Your task to perform on an android device: Go to wifi settings Image 0: 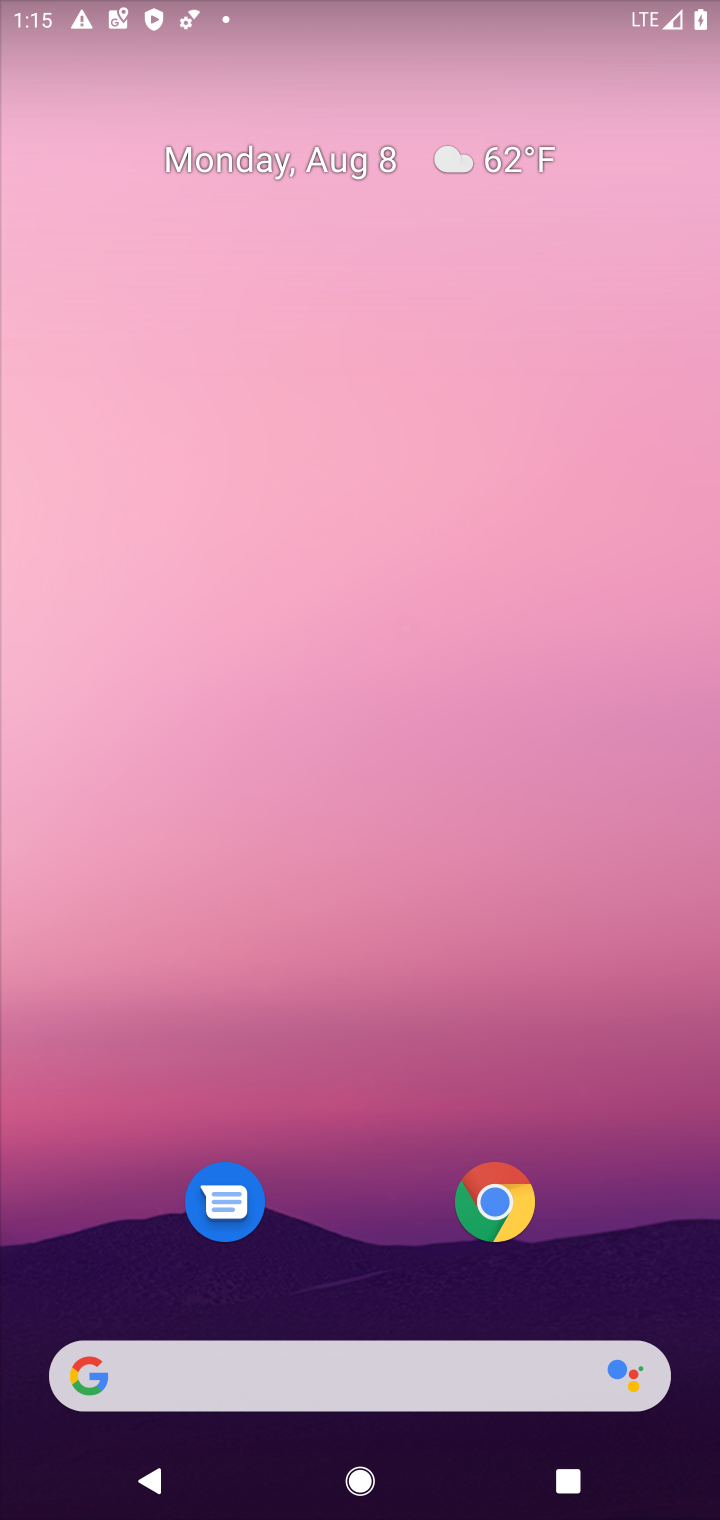
Step 0: drag from (298, 1121) to (351, 96)
Your task to perform on an android device: Go to wifi settings Image 1: 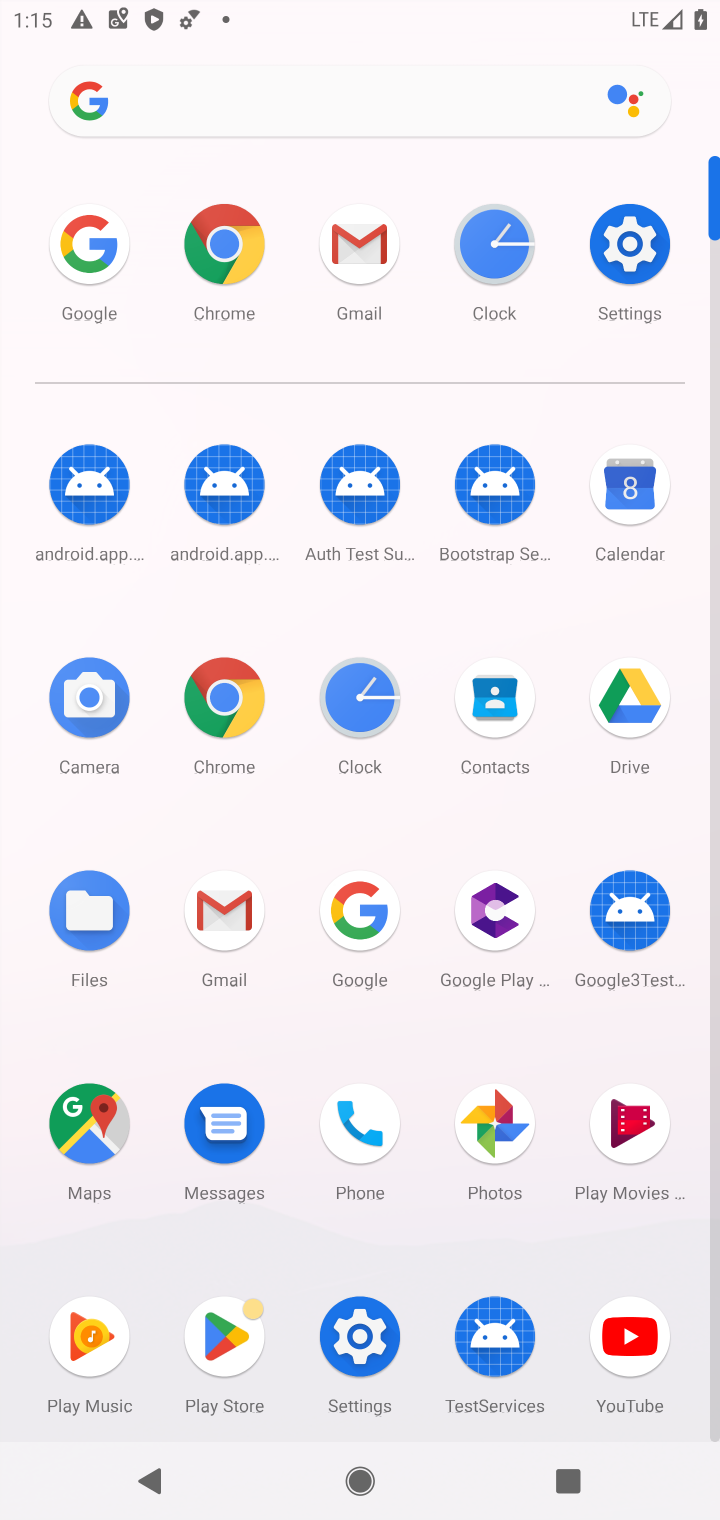
Step 1: click (626, 233)
Your task to perform on an android device: Go to wifi settings Image 2: 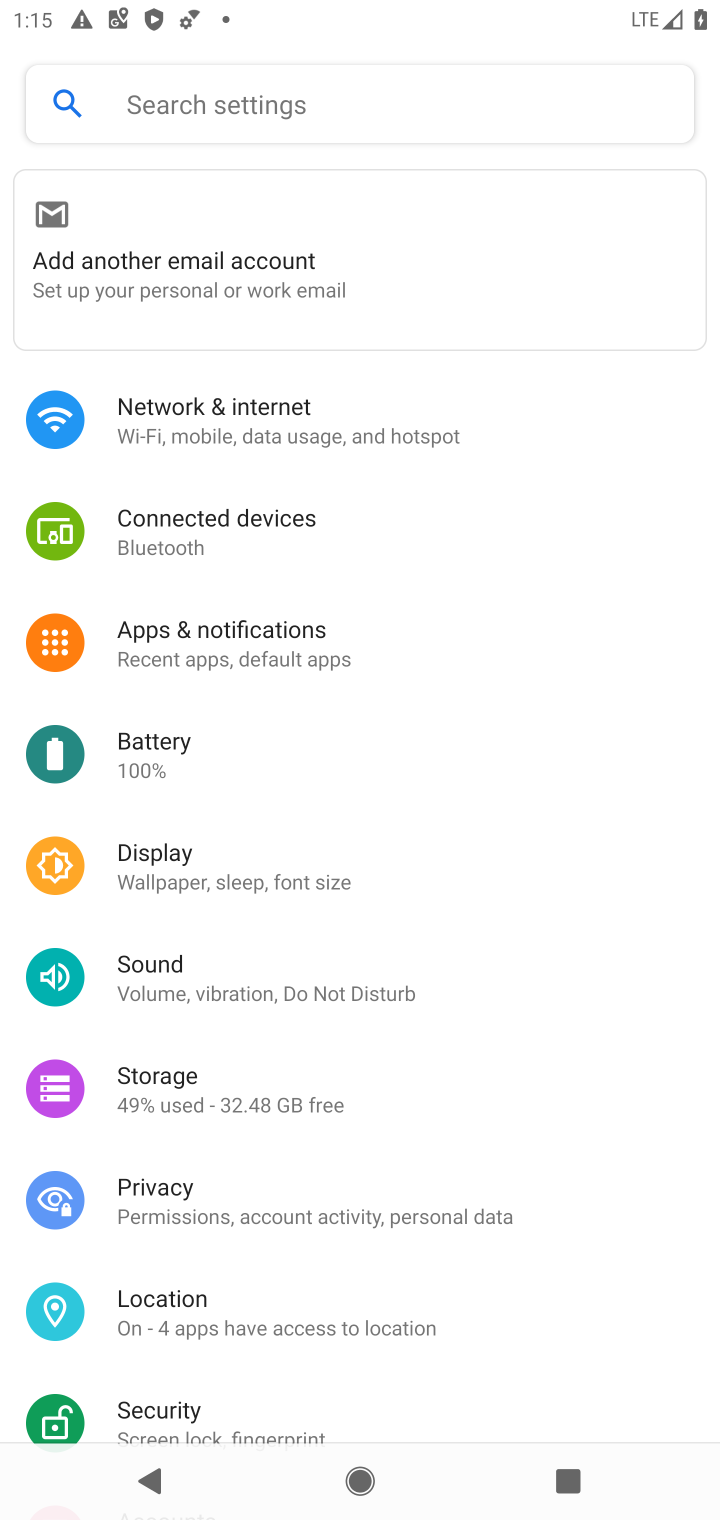
Step 2: click (223, 449)
Your task to perform on an android device: Go to wifi settings Image 3: 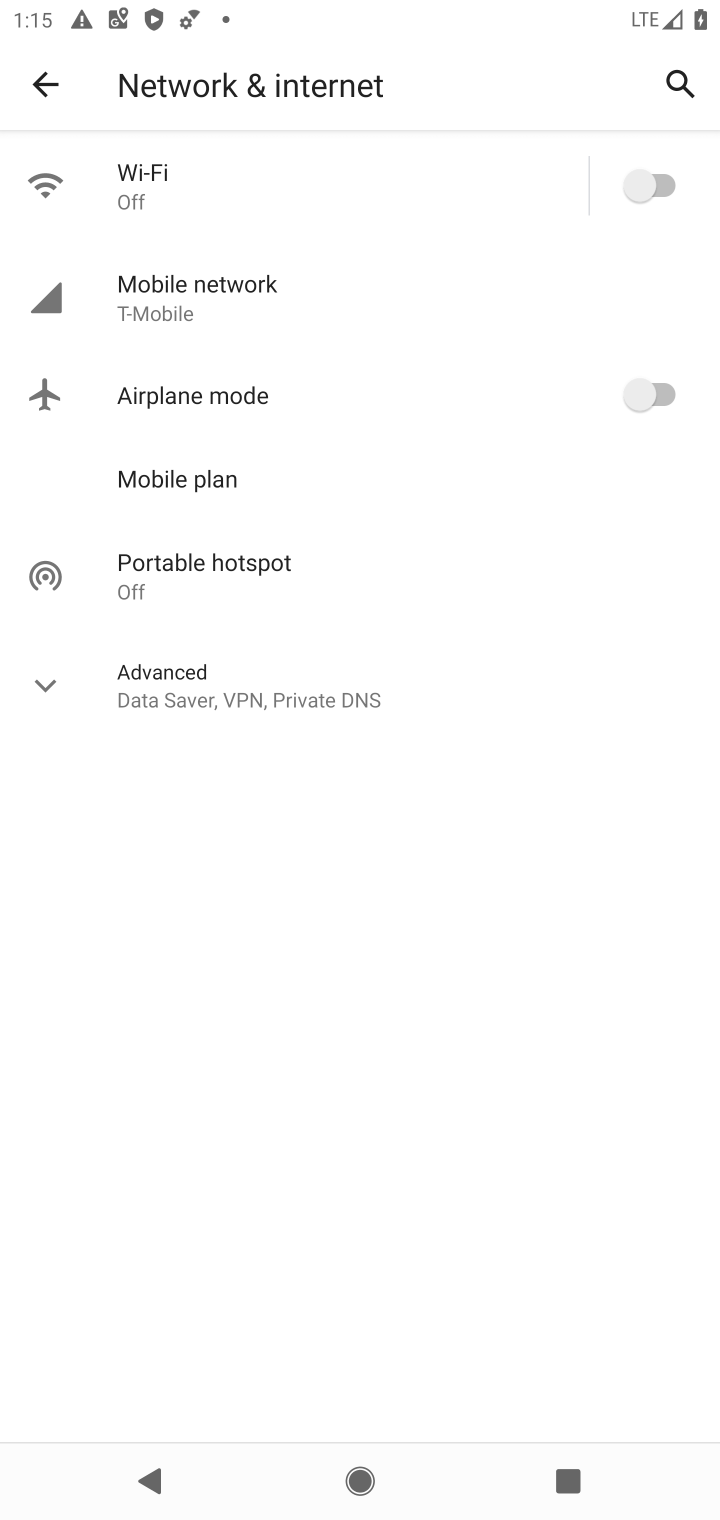
Step 3: click (163, 181)
Your task to perform on an android device: Go to wifi settings Image 4: 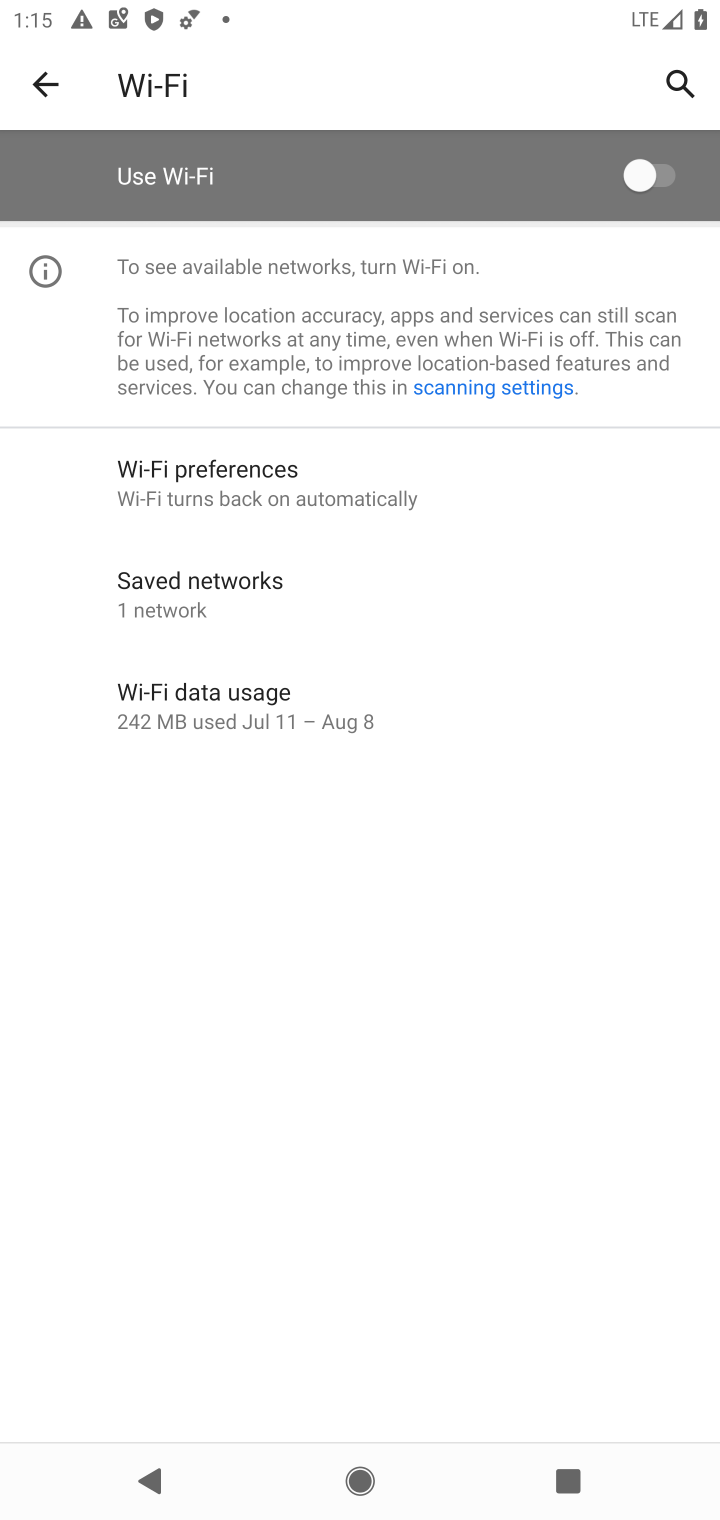
Step 4: task complete